Your task to perform on an android device: Search for Mexican restaurants on Maps Image 0: 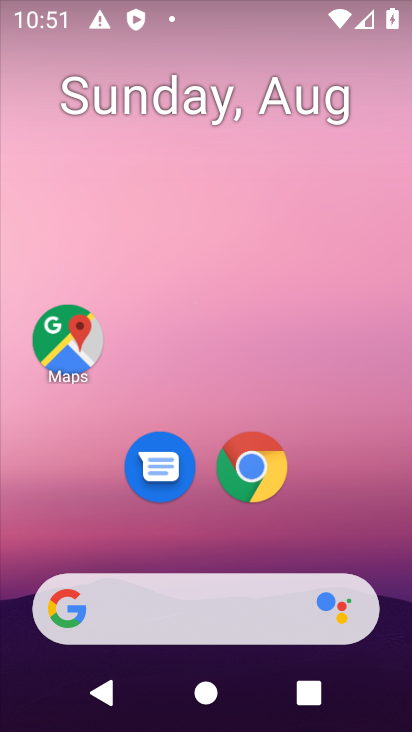
Step 0: drag from (284, 696) to (242, 232)
Your task to perform on an android device: Search for Mexican restaurants on Maps Image 1: 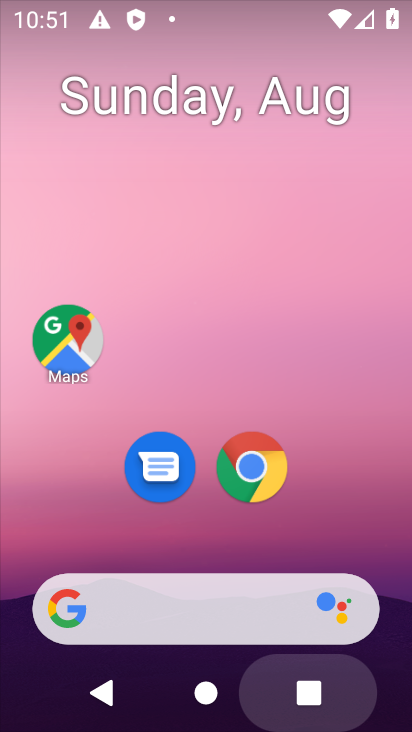
Step 1: drag from (292, 509) to (307, 136)
Your task to perform on an android device: Search for Mexican restaurants on Maps Image 2: 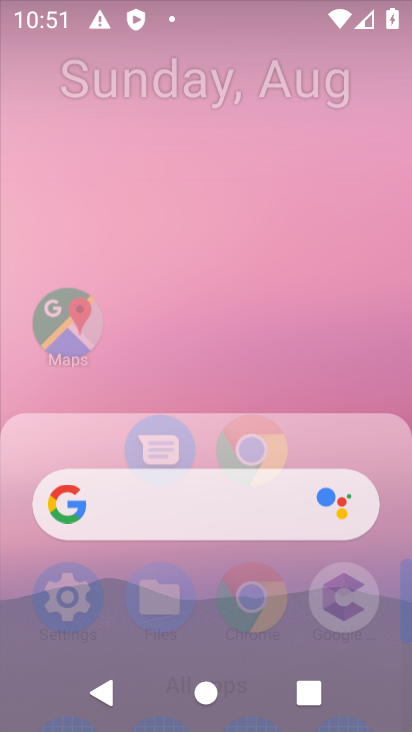
Step 2: drag from (290, 430) to (269, 120)
Your task to perform on an android device: Search for Mexican restaurants on Maps Image 3: 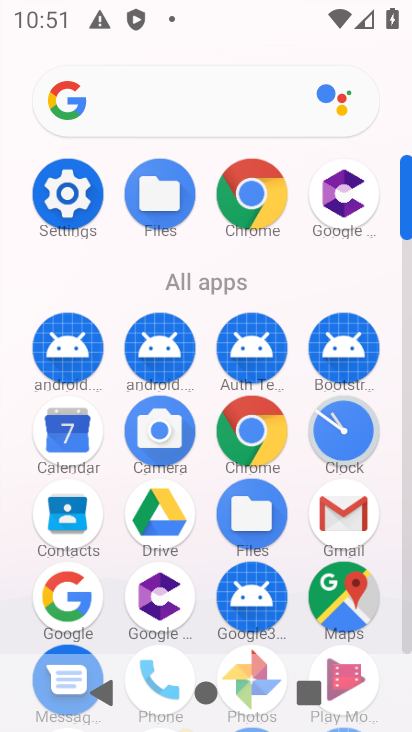
Step 3: drag from (290, 357) to (287, 136)
Your task to perform on an android device: Search for Mexican restaurants on Maps Image 4: 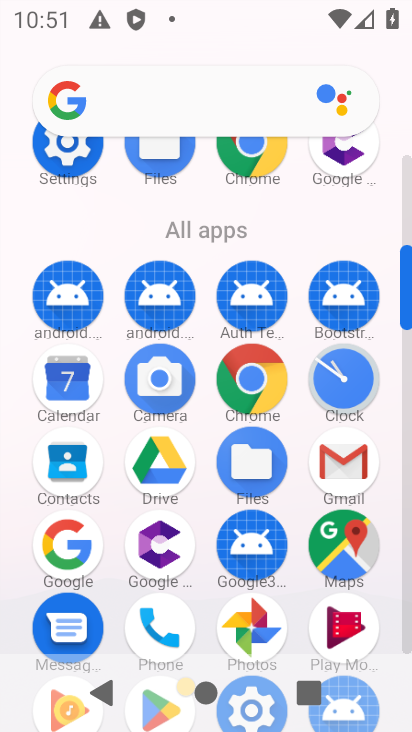
Step 4: click (355, 546)
Your task to perform on an android device: Search for Mexican restaurants on Maps Image 5: 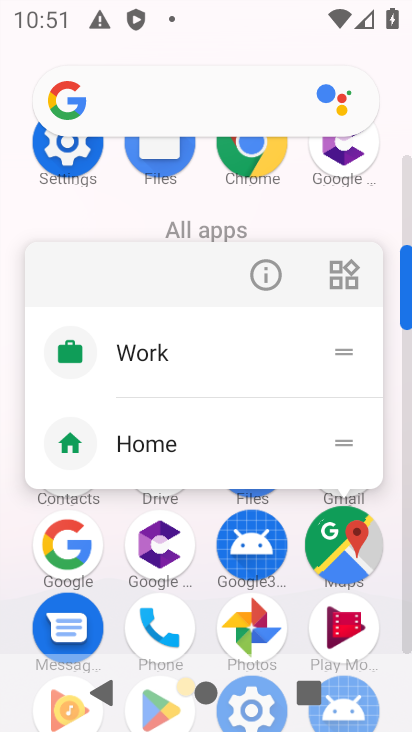
Step 5: click (345, 545)
Your task to perform on an android device: Search for Mexican restaurants on Maps Image 6: 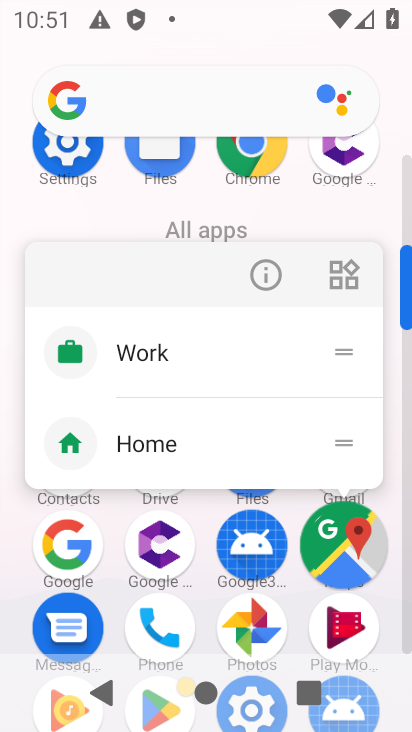
Step 6: click (355, 530)
Your task to perform on an android device: Search for Mexican restaurants on Maps Image 7: 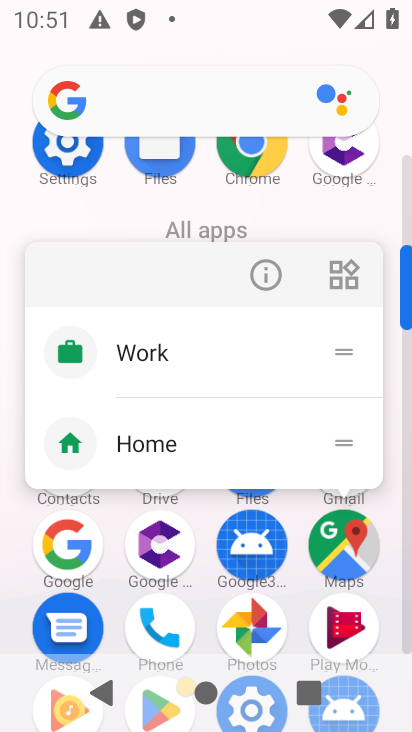
Step 7: click (355, 530)
Your task to perform on an android device: Search for Mexican restaurants on Maps Image 8: 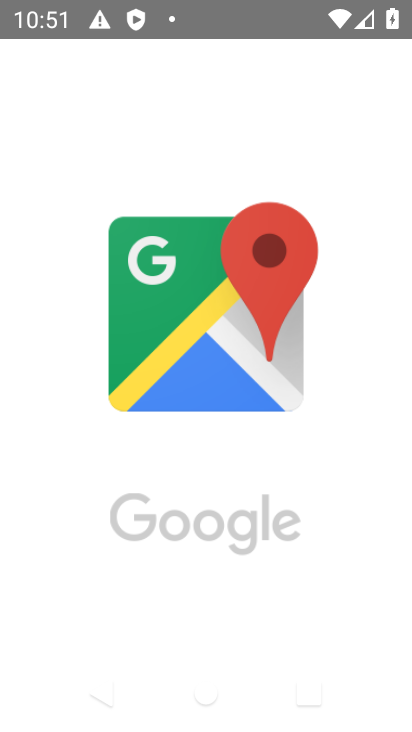
Step 8: click (213, 314)
Your task to perform on an android device: Search for Mexican restaurants on Maps Image 9: 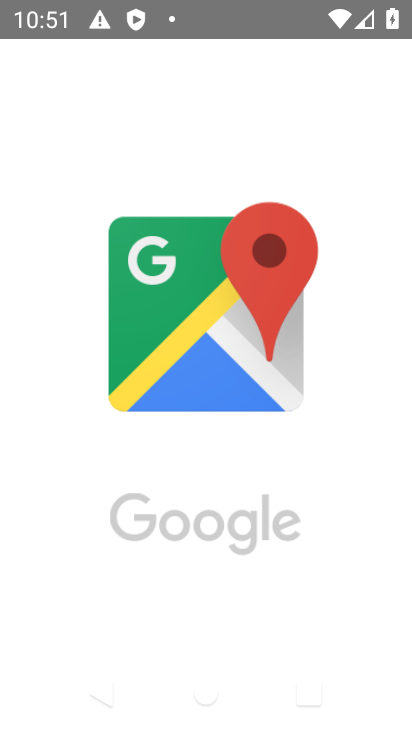
Step 9: click (213, 314)
Your task to perform on an android device: Search for Mexican restaurants on Maps Image 10: 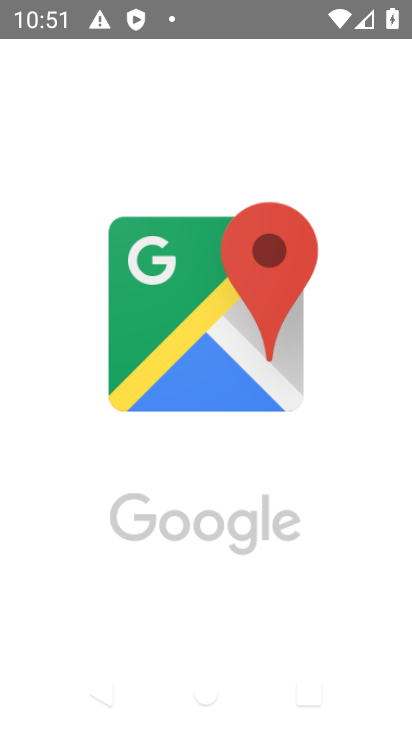
Step 10: click (213, 314)
Your task to perform on an android device: Search for Mexican restaurants on Maps Image 11: 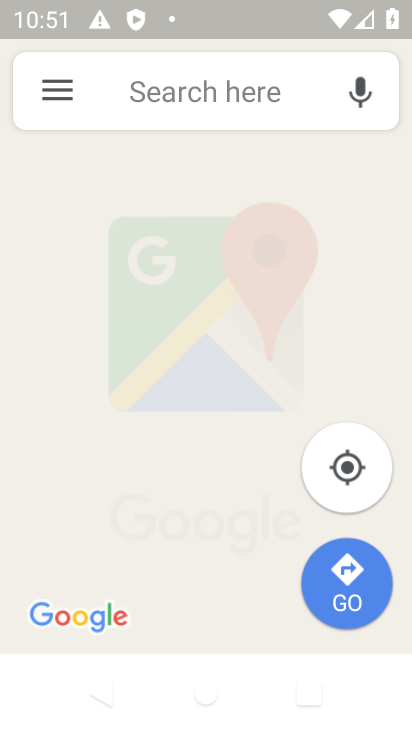
Step 11: click (217, 318)
Your task to perform on an android device: Search for Mexican restaurants on Maps Image 12: 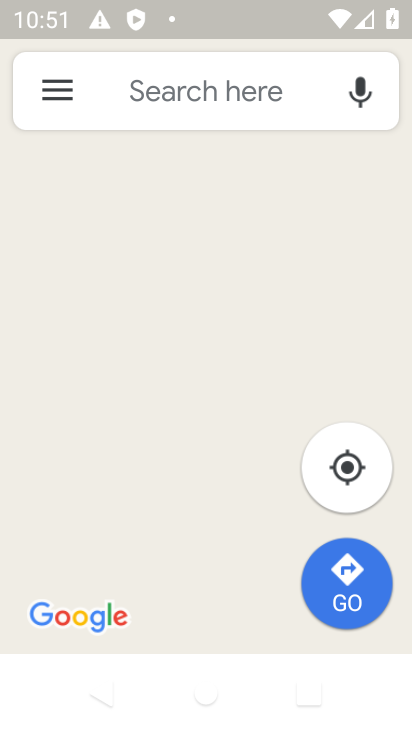
Step 12: click (220, 320)
Your task to perform on an android device: Search for Mexican restaurants on Maps Image 13: 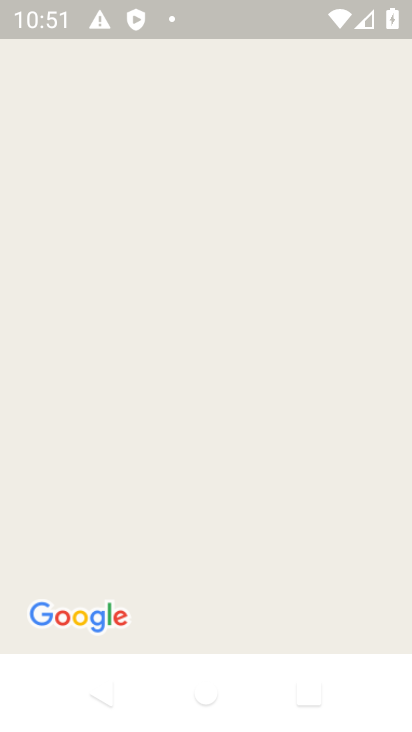
Step 13: click (57, 94)
Your task to perform on an android device: Search for Mexican restaurants on Maps Image 14: 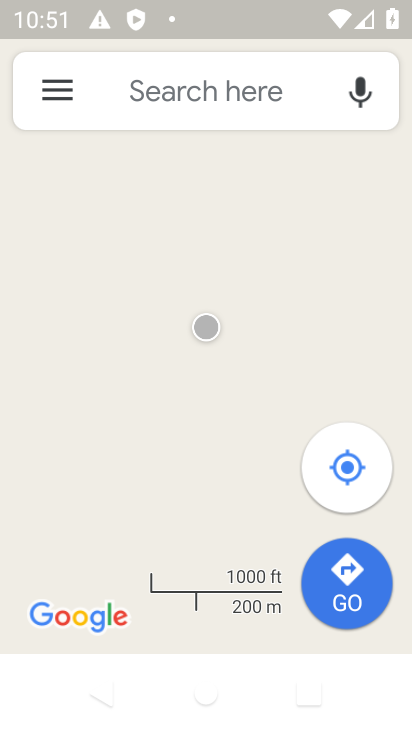
Step 14: click (136, 83)
Your task to perform on an android device: Search for Mexican restaurants on Maps Image 15: 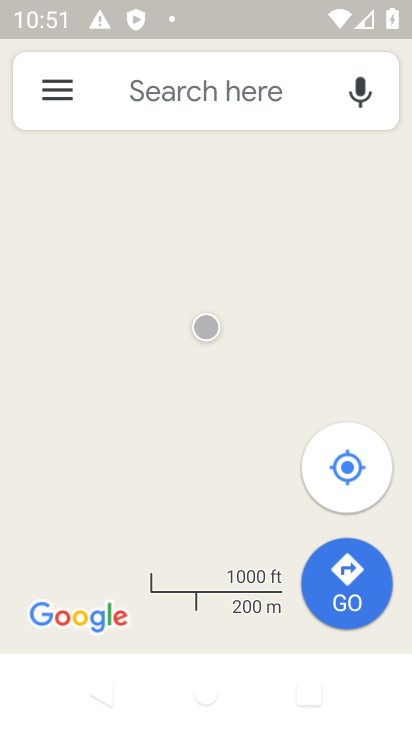
Step 15: click (127, 81)
Your task to perform on an android device: Search for Mexican restaurants on Maps Image 16: 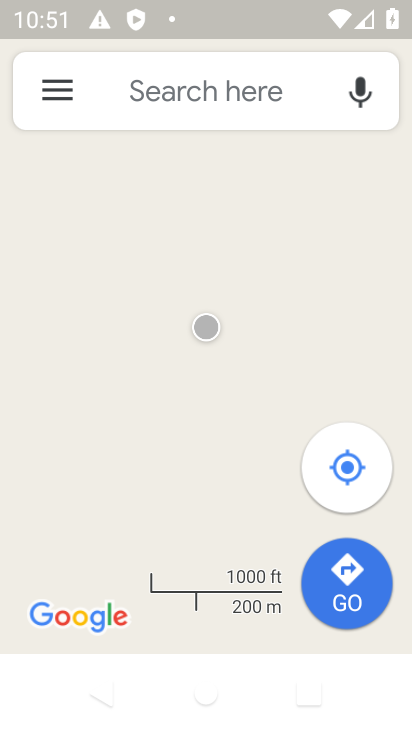
Step 16: click (127, 81)
Your task to perform on an android device: Search for Mexican restaurants on Maps Image 17: 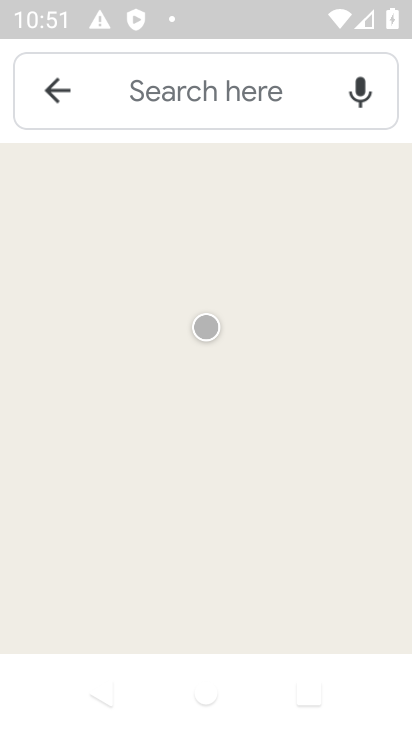
Step 17: click (128, 83)
Your task to perform on an android device: Search for Mexican restaurants on Maps Image 18: 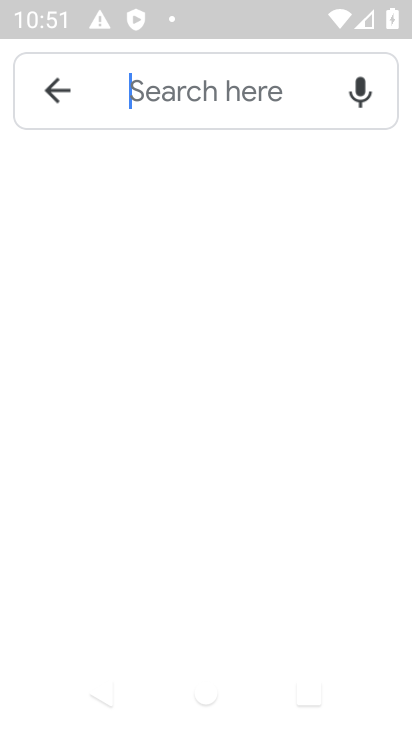
Step 18: click (128, 83)
Your task to perform on an android device: Search for Mexican restaurants on Maps Image 19: 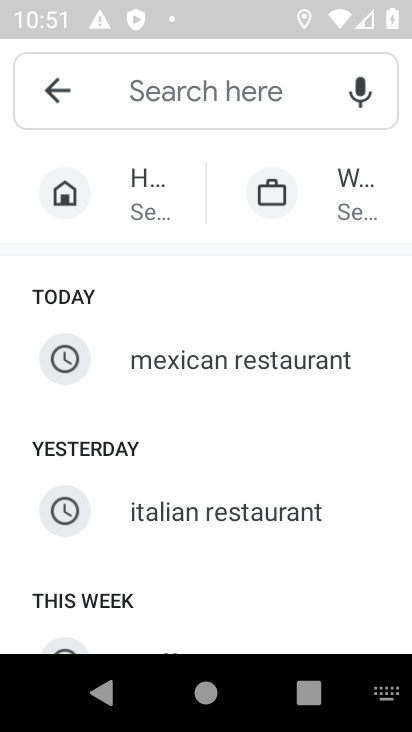
Step 19: type "mexican restaureants"
Your task to perform on an android device: Search for Mexican restaurants on Maps Image 20: 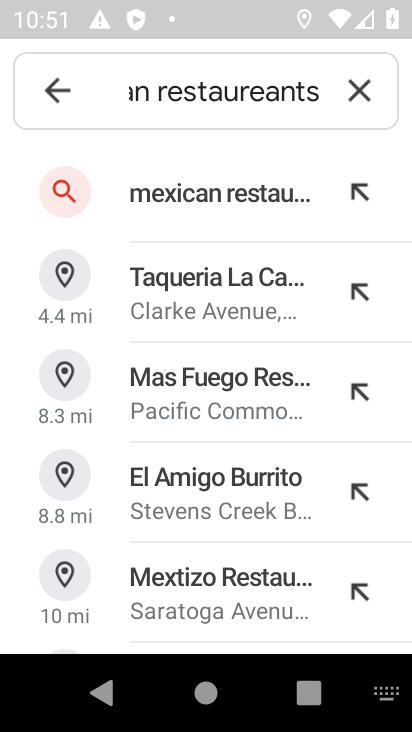
Step 20: click (206, 207)
Your task to perform on an android device: Search for Mexican restaurants on Maps Image 21: 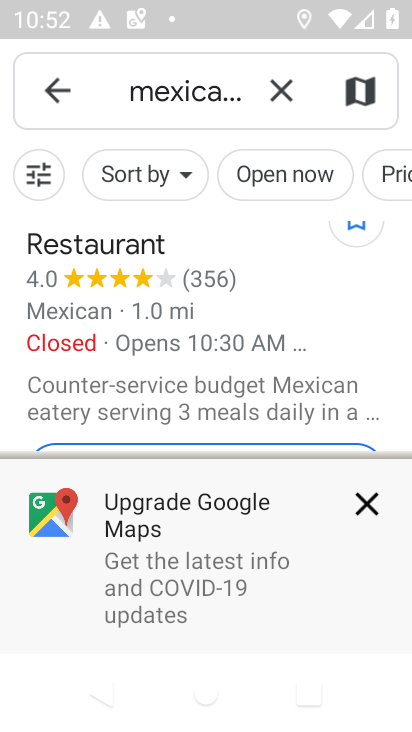
Step 21: task complete